Your task to perform on an android device: Go to Android settings Image 0: 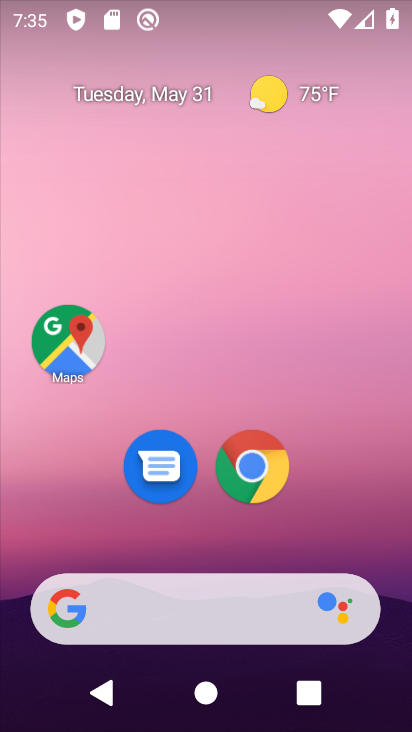
Step 0: drag from (209, 562) to (206, 93)
Your task to perform on an android device: Go to Android settings Image 1: 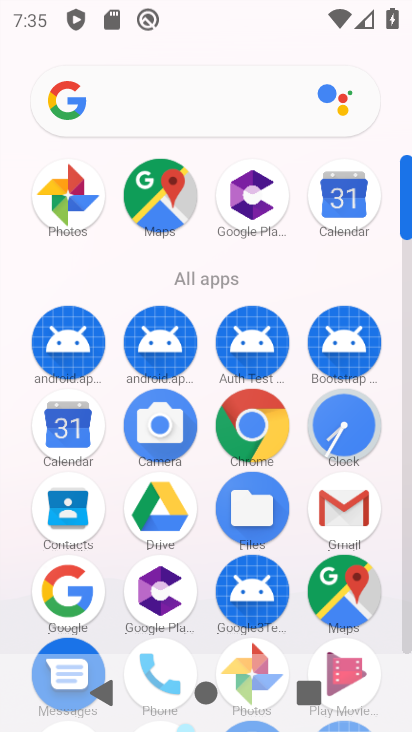
Step 1: drag from (203, 543) to (256, 92)
Your task to perform on an android device: Go to Android settings Image 2: 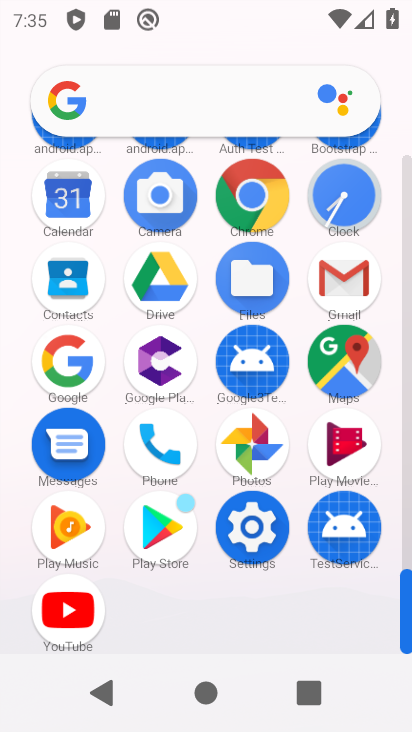
Step 2: click (233, 524)
Your task to perform on an android device: Go to Android settings Image 3: 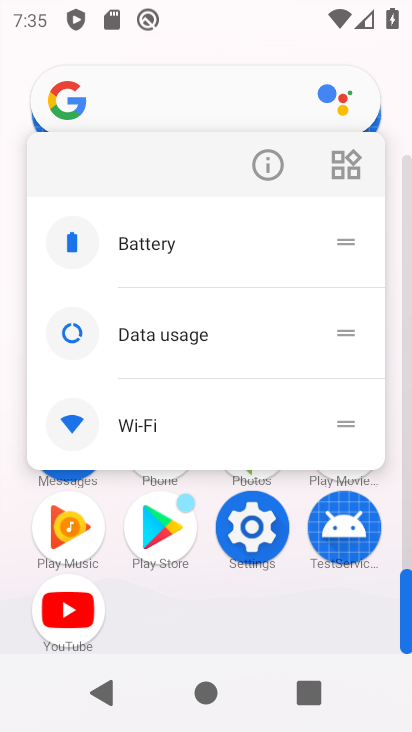
Step 3: click (262, 169)
Your task to perform on an android device: Go to Android settings Image 4: 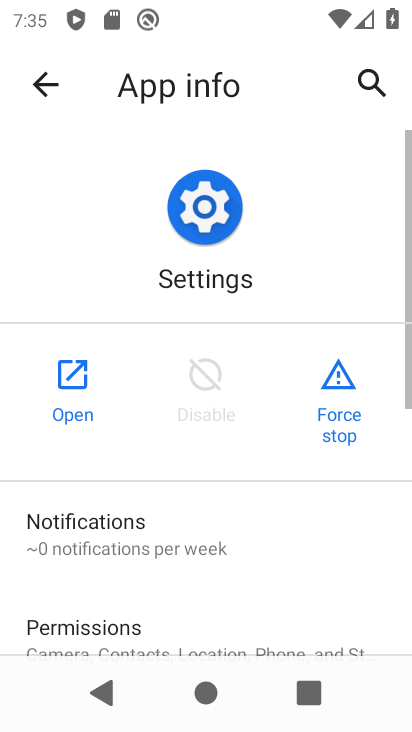
Step 4: click (60, 361)
Your task to perform on an android device: Go to Android settings Image 5: 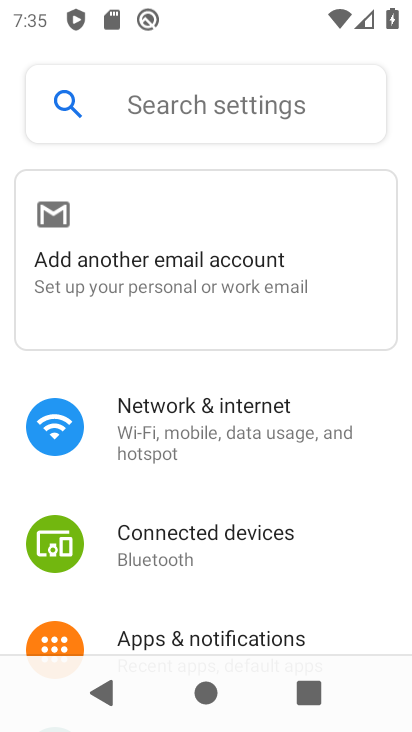
Step 5: drag from (187, 628) to (289, 1)
Your task to perform on an android device: Go to Android settings Image 6: 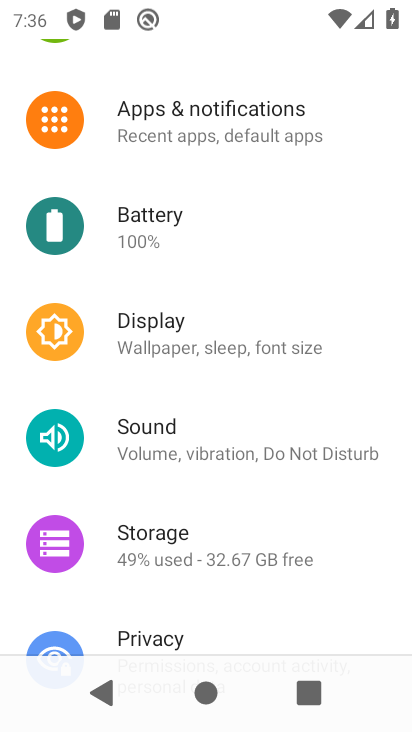
Step 6: drag from (218, 489) to (408, 24)
Your task to perform on an android device: Go to Android settings Image 7: 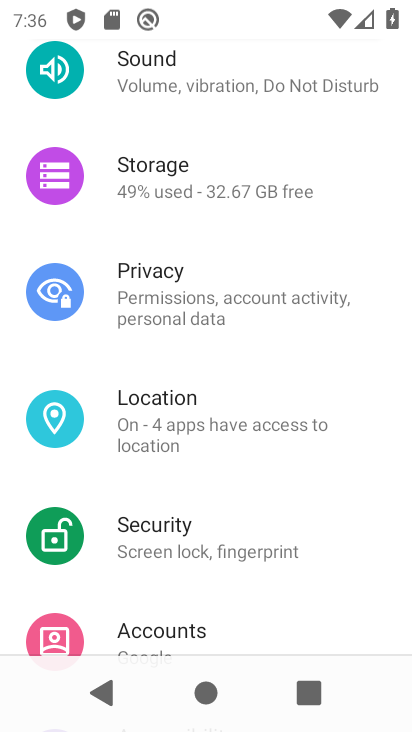
Step 7: drag from (168, 578) to (100, 25)
Your task to perform on an android device: Go to Android settings Image 8: 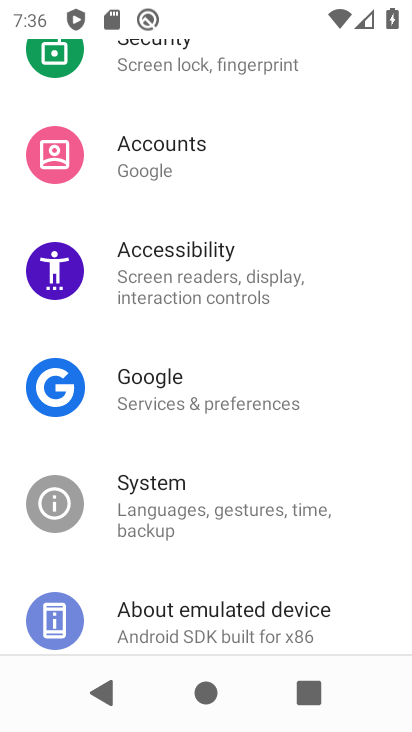
Step 8: drag from (217, 599) to (241, 84)
Your task to perform on an android device: Go to Android settings Image 9: 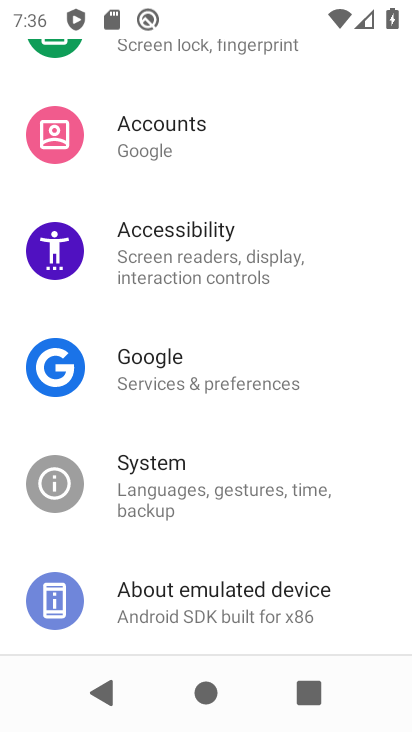
Step 9: click (192, 614)
Your task to perform on an android device: Go to Android settings Image 10: 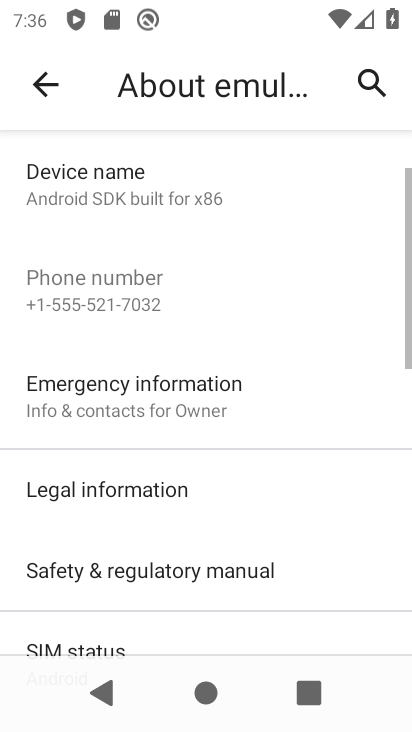
Step 10: drag from (184, 602) to (297, 144)
Your task to perform on an android device: Go to Android settings Image 11: 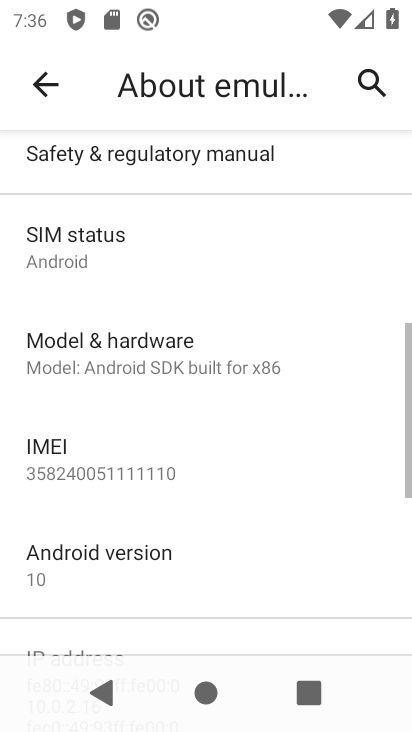
Step 11: click (135, 582)
Your task to perform on an android device: Go to Android settings Image 12: 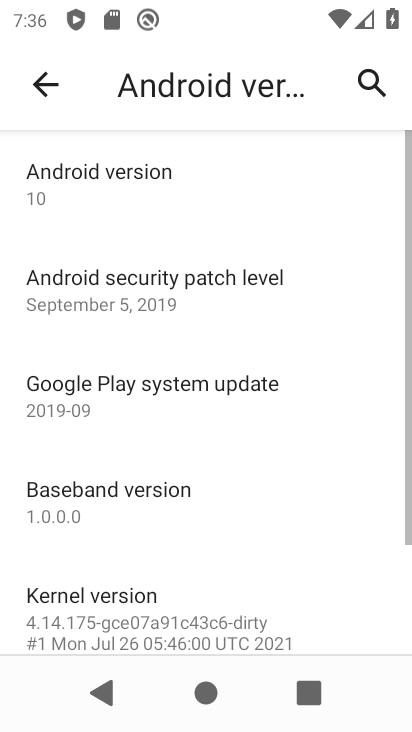
Step 12: task complete